Your task to perform on an android device: Open the map Image 0: 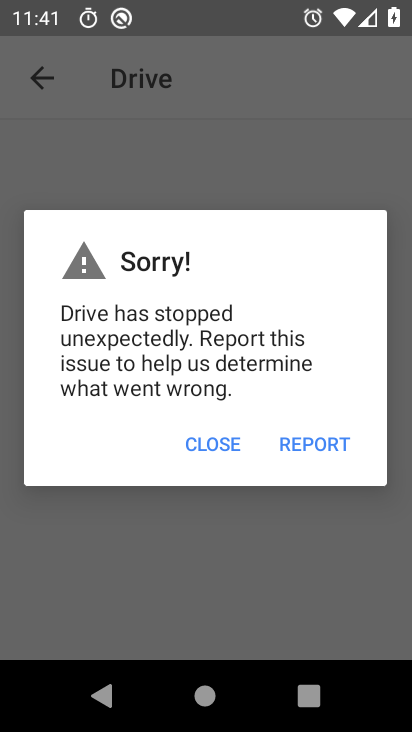
Step 0: press home button
Your task to perform on an android device: Open the map Image 1: 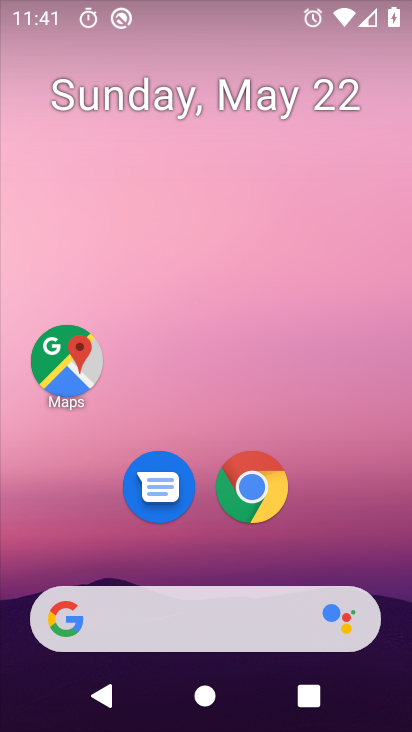
Step 1: drag from (333, 530) to (346, 177)
Your task to perform on an android device: Open the map Image 2: 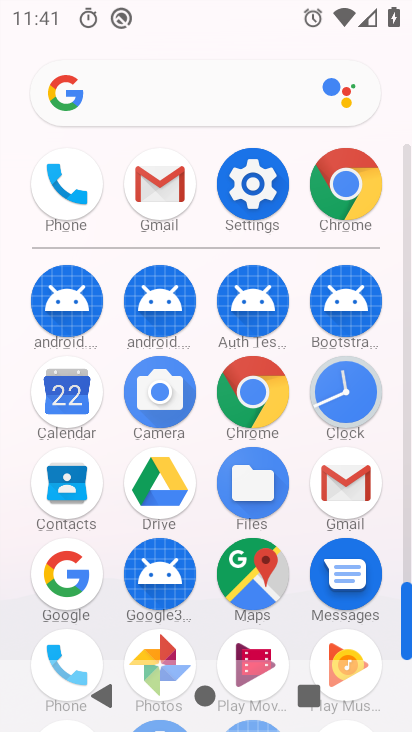
Step 2: click (264, 562)
Your task to perform on an android device: Open the map Image 3: 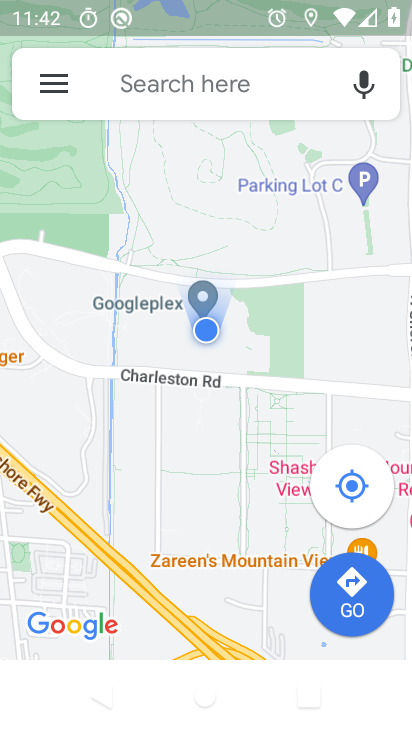
Step 3: task complete